Your task to perform on an android device: turn on the 12-hour format for clock Image 0: 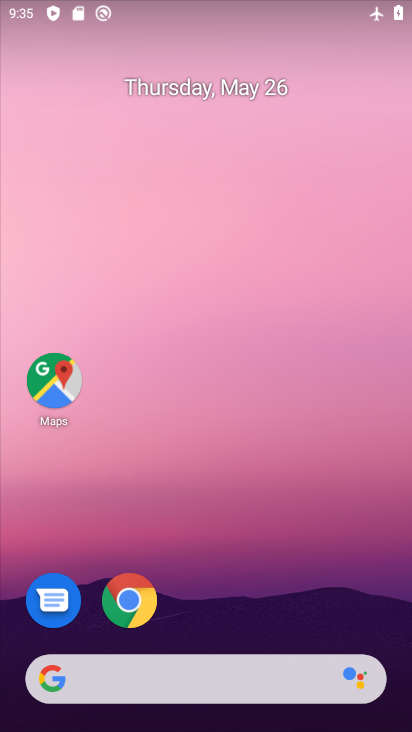
Step 0: drag from (287, 583) to (306, 73)
Your task to perform on an android device: turn on the 12-hour format for clock Image 1: 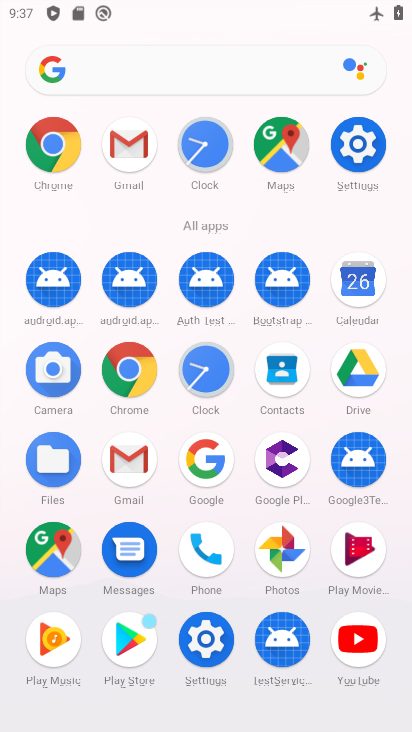
Step 1: click (217, 362)
Your task to perform on an android device: turn on the 12-hour format for clock Image 2: 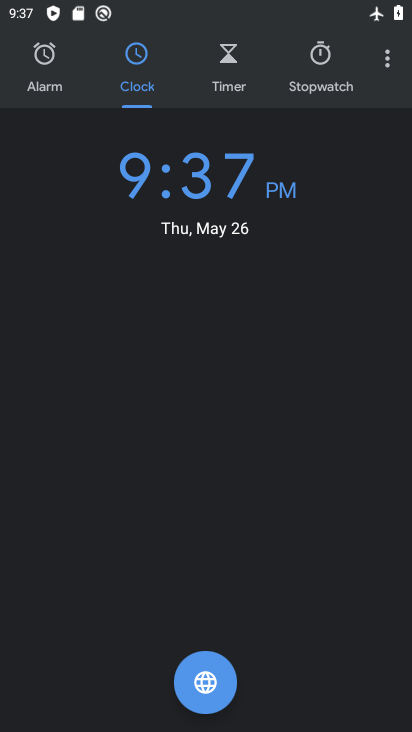
Step 2: click (391, 50)
Your task to perform on an android device: turn on the 12-hour format for clock Image 3: 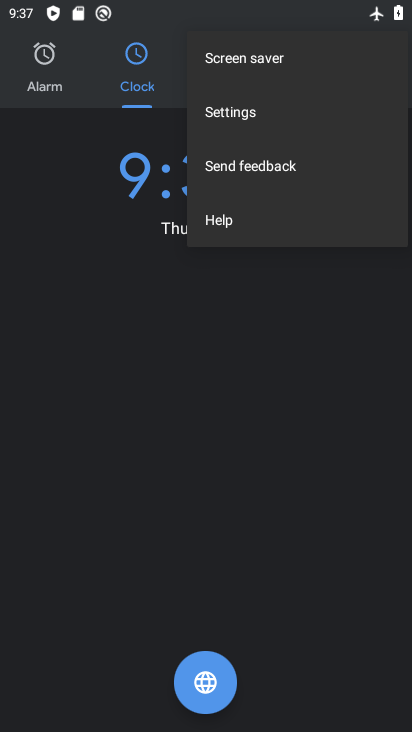
Step 3: click (248, 117)
Your task to perform on an android device: turn on the 12-hour format for clock Image 4: 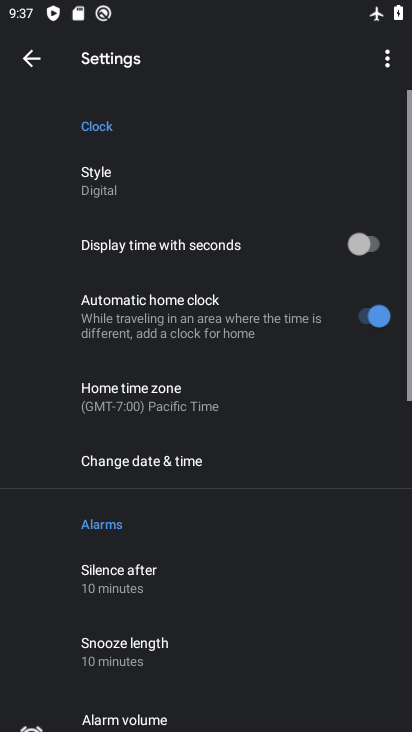
Step 4: drag from (191, 557) to (237, 673)
Your task to perform on an android device: turn on the 12-hour format for clock Image 5: 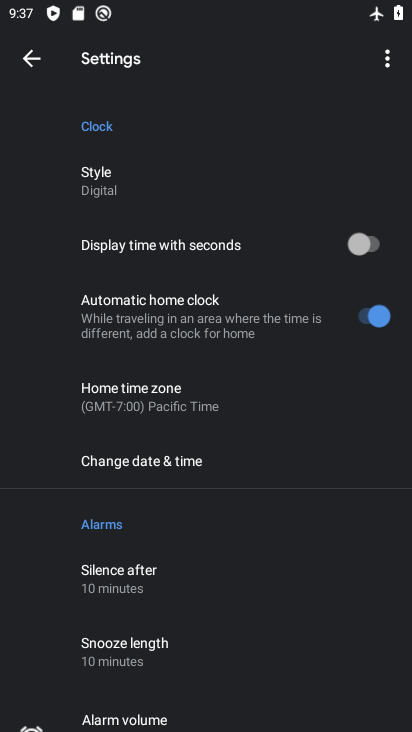
Step 5: click (175, 468)
Your task to perform on an android device: turn on the 12-hour format for clock Image 6: 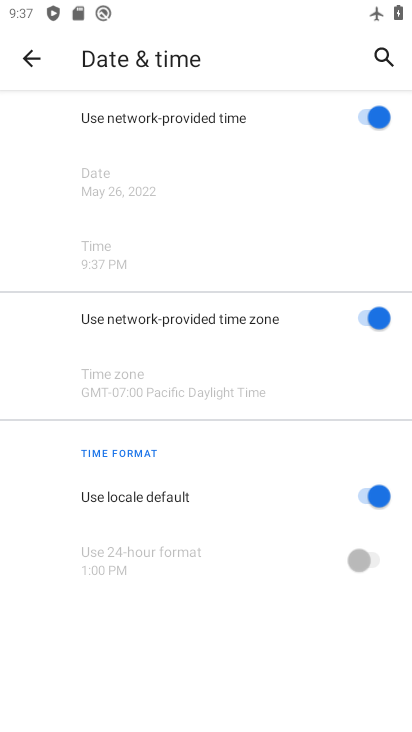
Step 6: task complete